Your task to perform on an android device: Go to network settings Image 0: 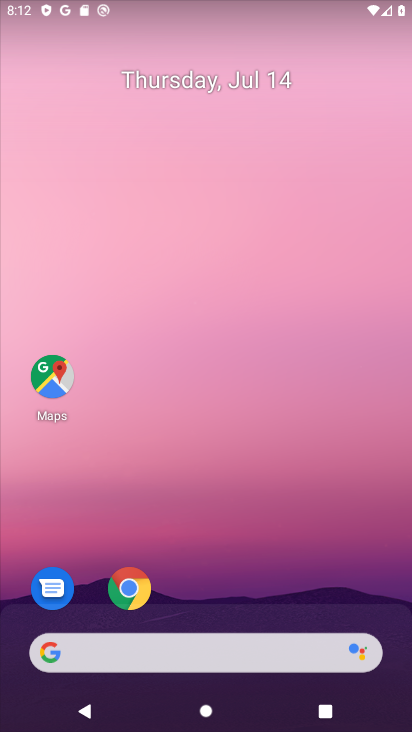
Step 0: drag from (291, 610) to (211, 208)
Your task to perform on an android device: Go to network settings Image 1: 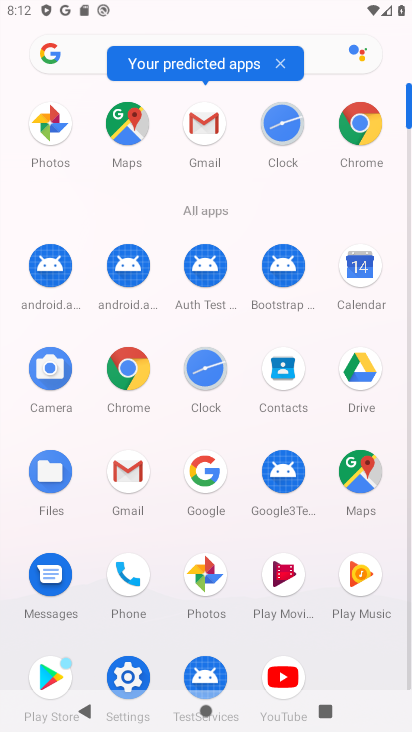
Step 1: click (133, 660)
Your task to perform on an android device: Go to network settings Image 2: 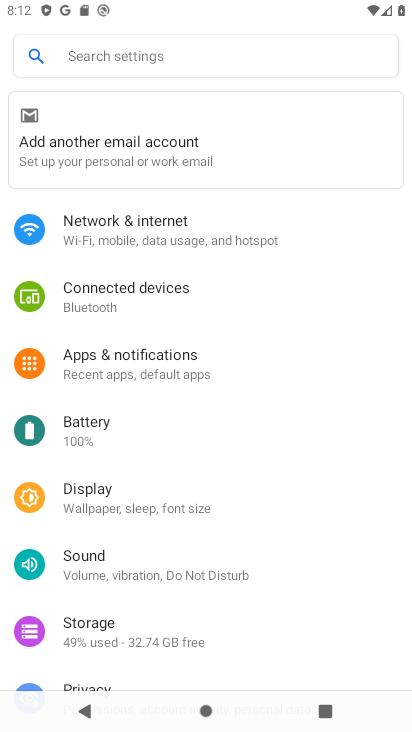
Step 2: click (208, 223)
Your task to perform on an android device: Go to network settings Image 3: 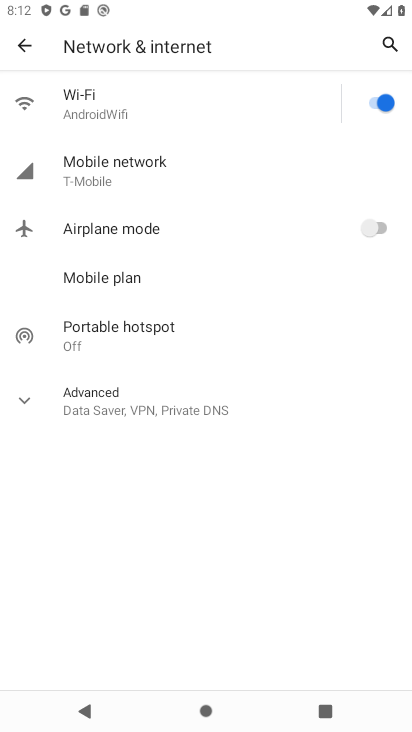
Step 3: task complete